Your task to perform on an android device: clear history in the chrome app Image 0: 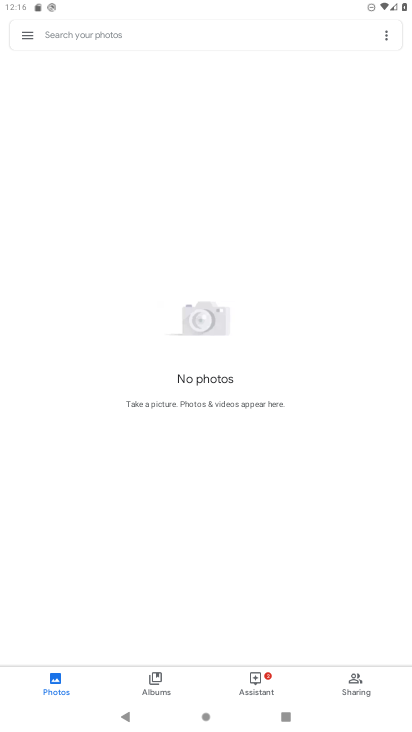
Step 0: press home button
Your task to perform on an android device: clear history in the chrome app Image 1: 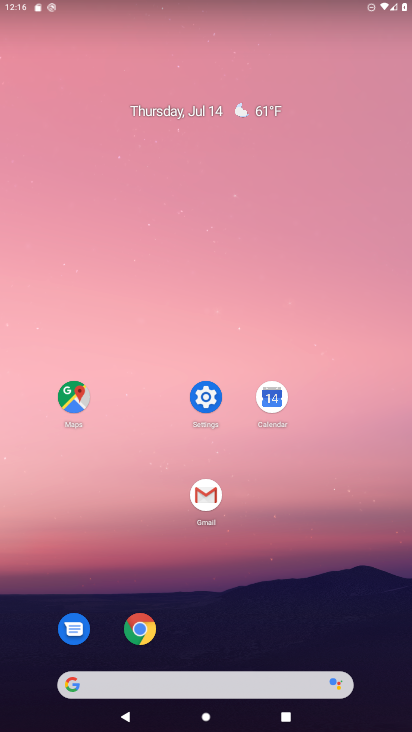
Step 1: click (137, 635)
Your task to perform on an android device: clear history in the chrome app Image 2: 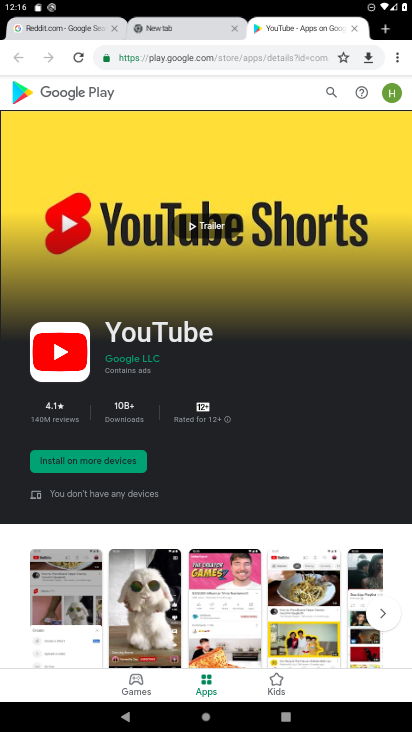
Step 2: press home button
Your task to perform on an android device: clear history in the chrome app Image 3: 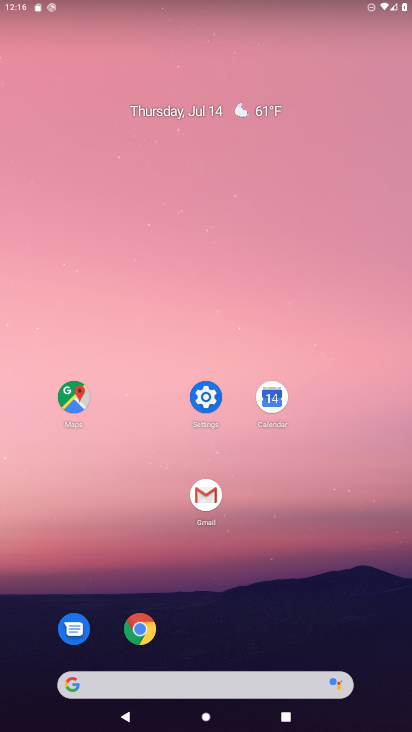
Step 3: click (142, 620)
Your task to perform on an android device: clear history in the chrome app Image 4: 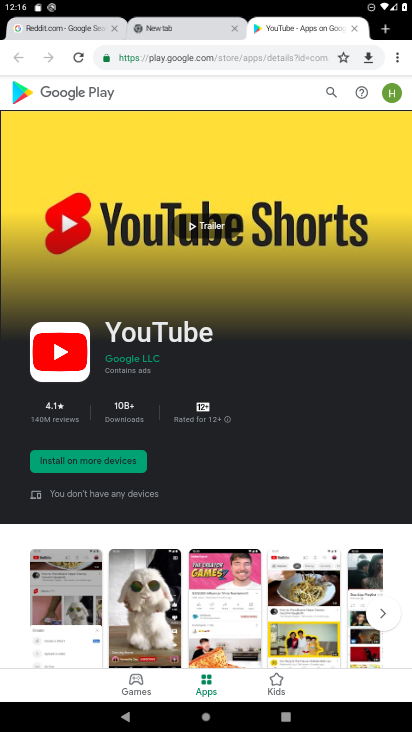
Step 4: click (15, 54)
Your task to perform on an android device: clear history in the chrome app Image 5: 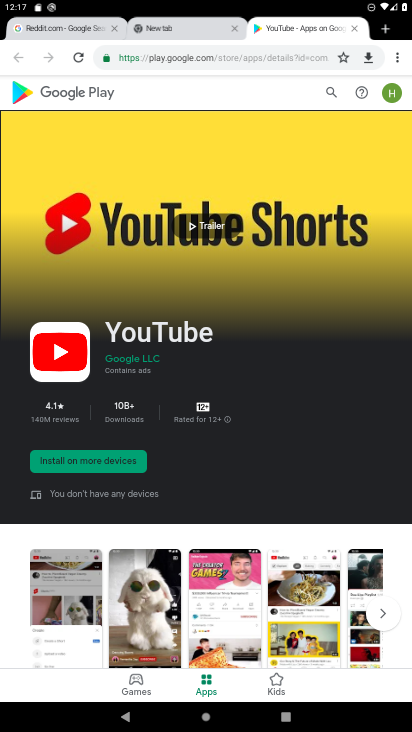
Step 5: press back button
Your task to perform on an android device: clear history in the chrome app Image 6: 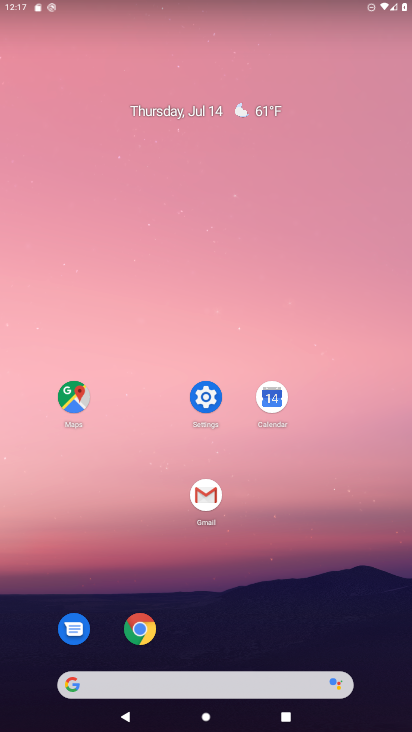
Step 6: click (136, 630)
Your task to perform on an android device: clear history in the chrome app Image 7: 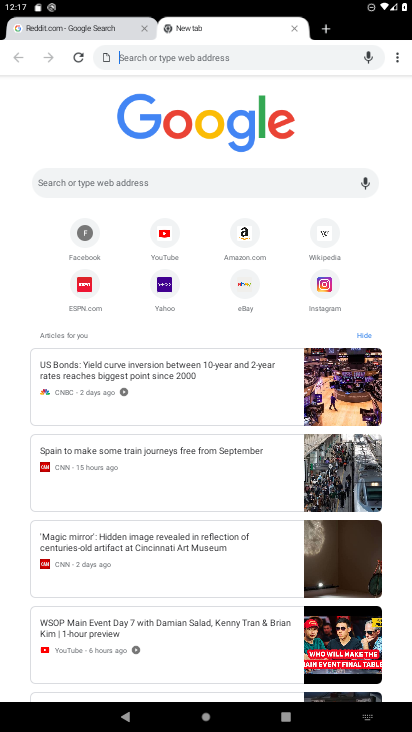
Step 7: click (401, 57)
Your task to perform on an android device: clear history in the chrome app Image 8: 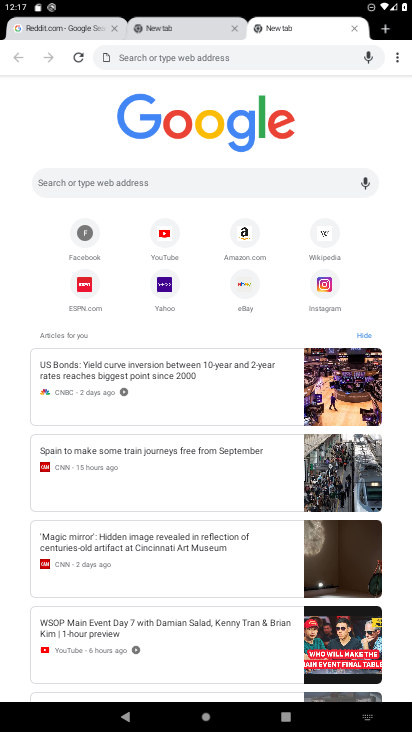
Step 8: click (401, 57)
Your task to perform on an android device: clear history in the chrome app Image 9: 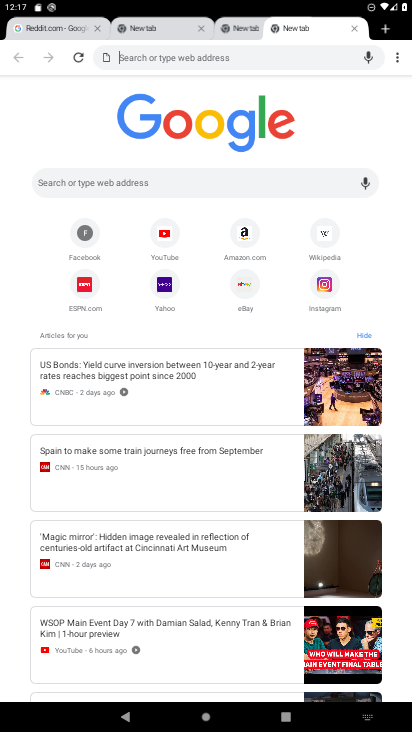
Step 9: click (398, 57)
Your task to perform on an android device: clear history in the chrome app Image 10: 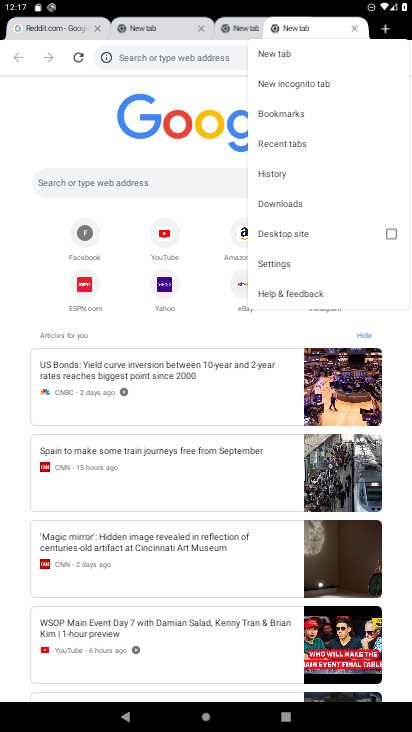
Step 10: click (263, 170)
Your task to perform on an android device: clear history in the chrome app Image 11: 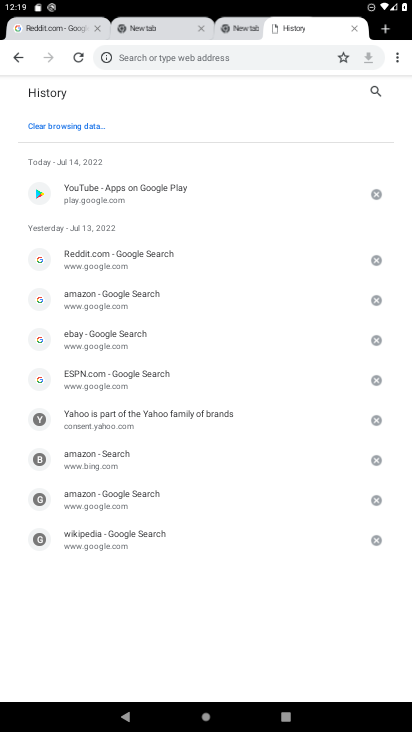
Step 11: click (81, 127)
Your task to perform on an android device: clear history in the chrome app Image 12: 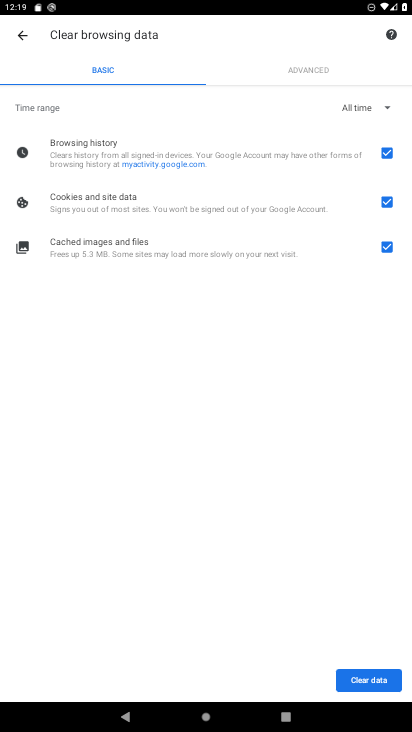
Step 12: click (368, 675)
Your task to perform on an android device: clear history in the chrome app Image 13: 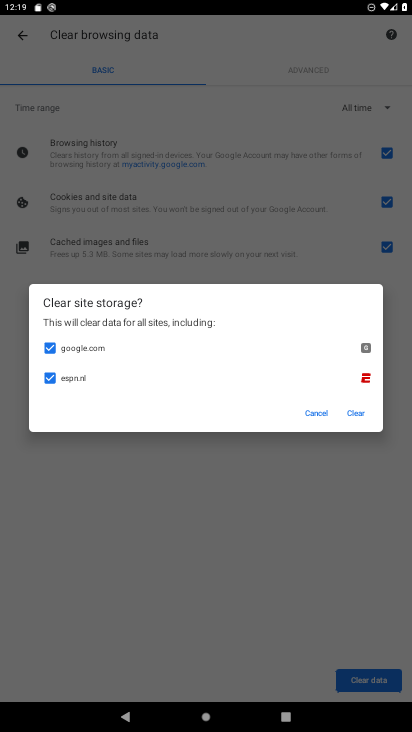
Step 13: click (352, 411)
Your task to perform on an android device: clear history in the chrome app Image 14: 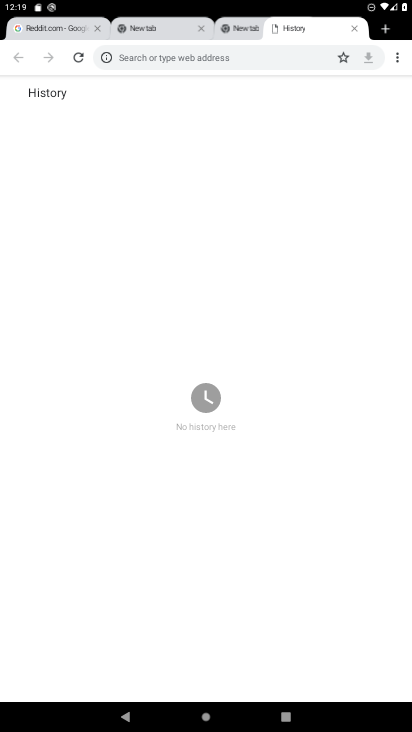
Step 14: task complete